Your task to perform on an android device: Go to location settings Image 0: 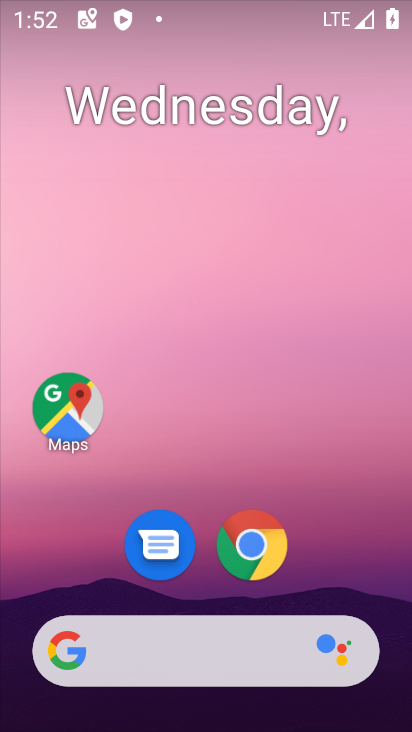
Step 0: drag from (308, 537) to (306, 148)
Your task to perform on an android device: Go to location settings Image 1: 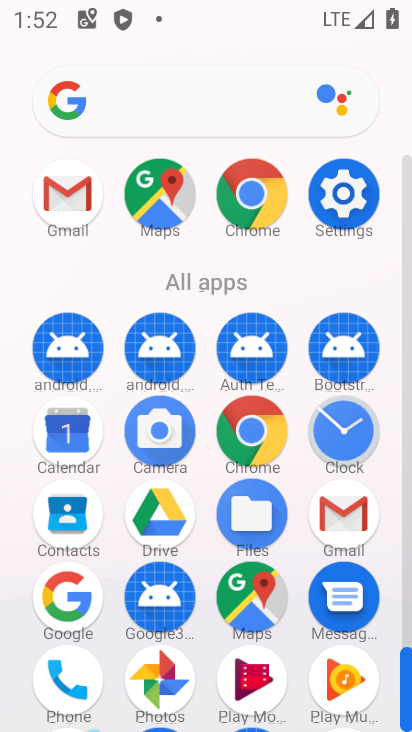
Step 1: click (334, 177)
Your task to perform on an android device: Go to location settings Image 2: 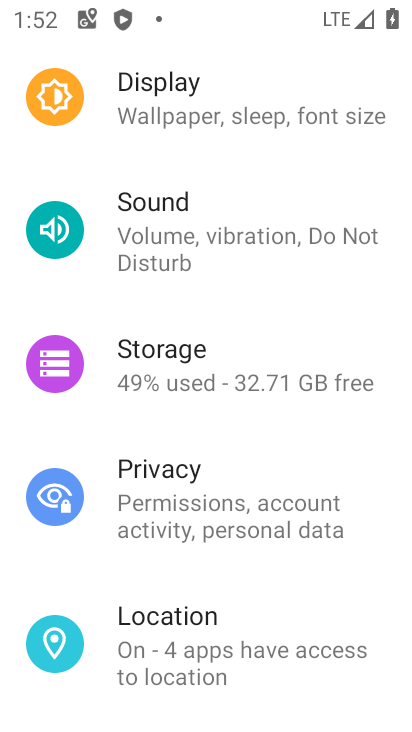
Step 2: click (182, 661)
Your task to perform on an android device: Go to location settings Image 3: 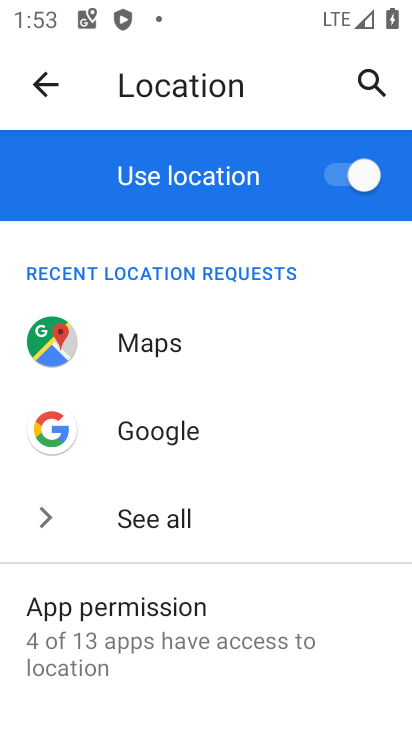
Step 3: task complete